Your task to perform on an android device: set default search engine in the chrome app Image 0: 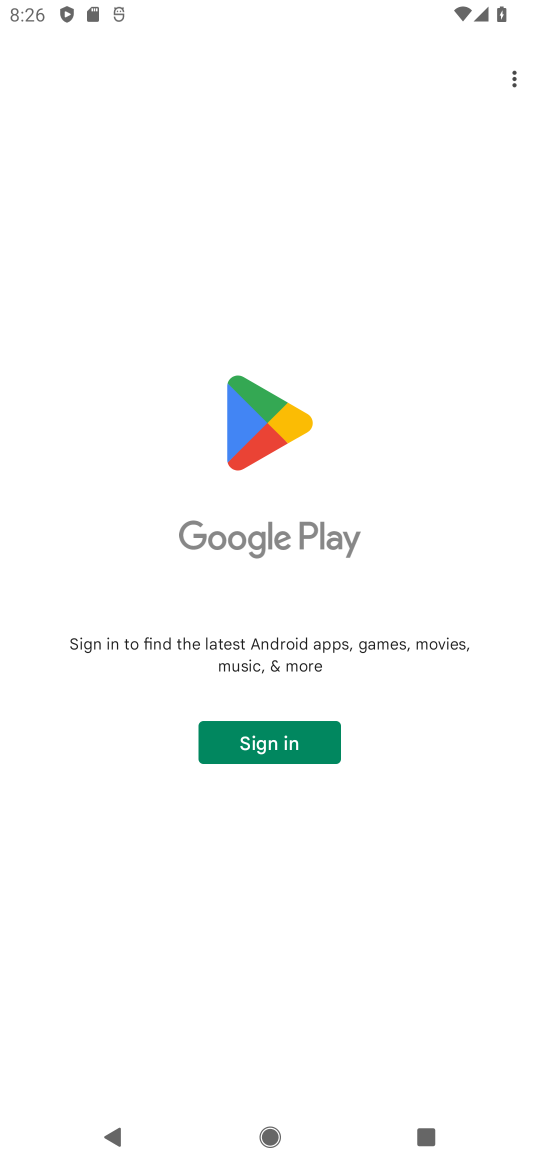
Step 0: press back button
Your task to perform on an android device: set default search engine in the chrome app Image 1: 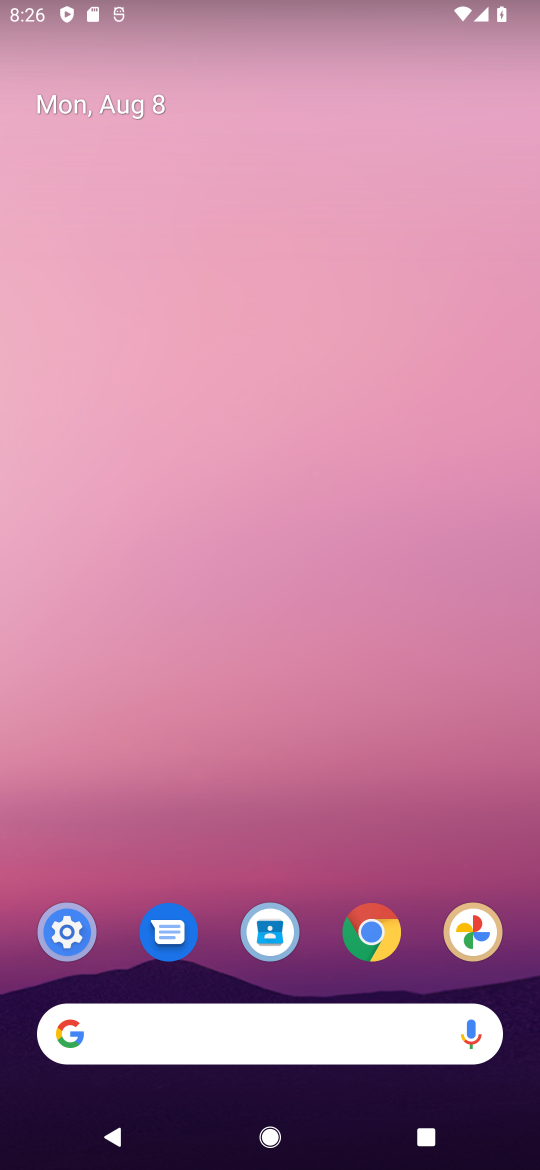
Step 1: click (372, 920)
Your task to perform on an android device: set default search engine in the chrome app Image 2: 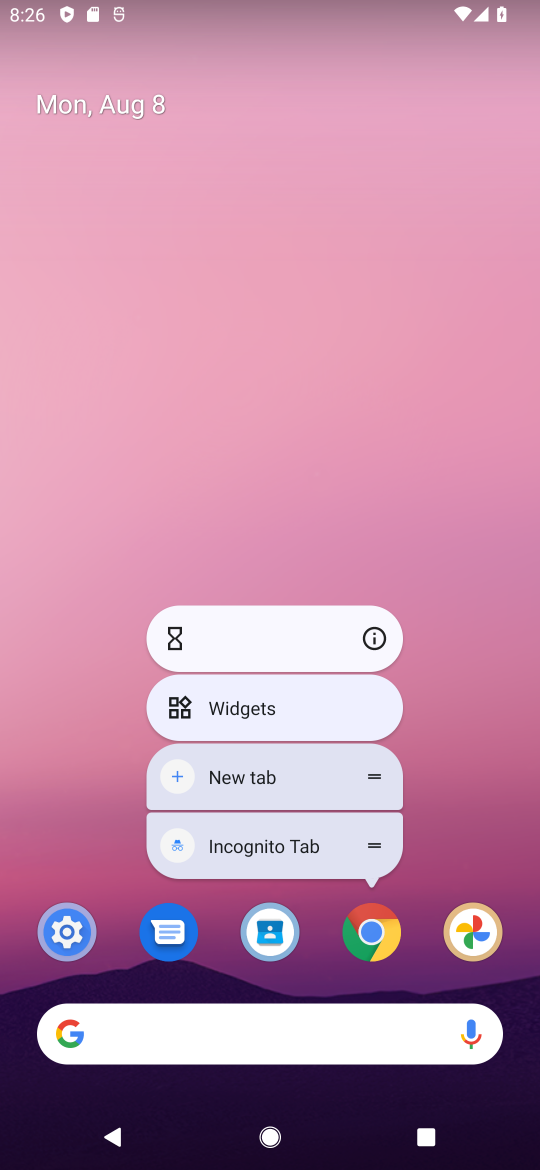
Step 2: click (378, 930)
Your task to perform on an android device: set default search engine in the chrome app Image 3: 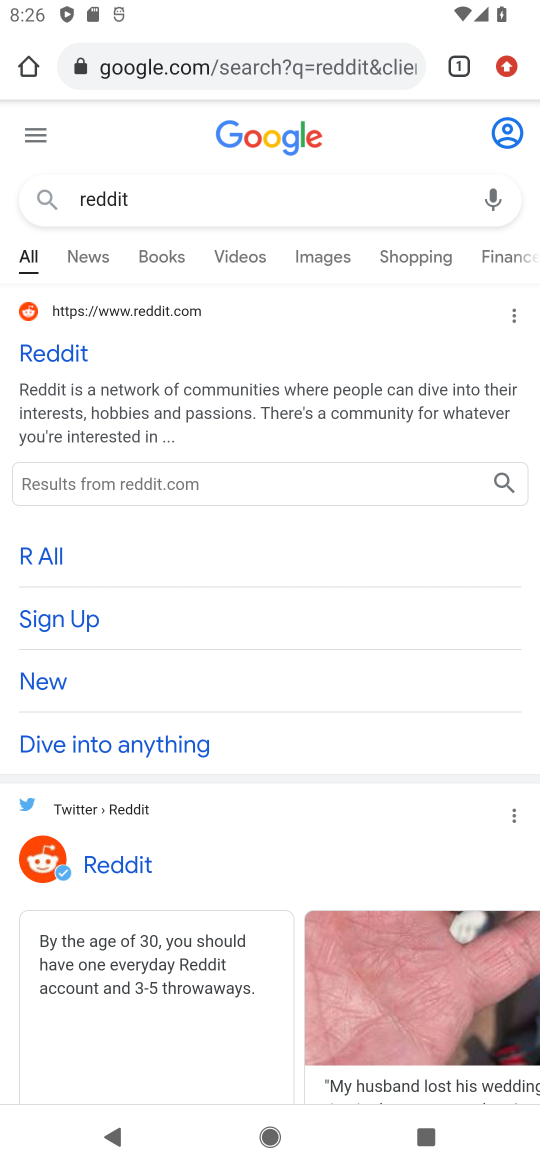
Step 3: drag from (517, 64) to (321, 871)
Your task to perform on an android device: set default search engine in the chrome app Image 4: 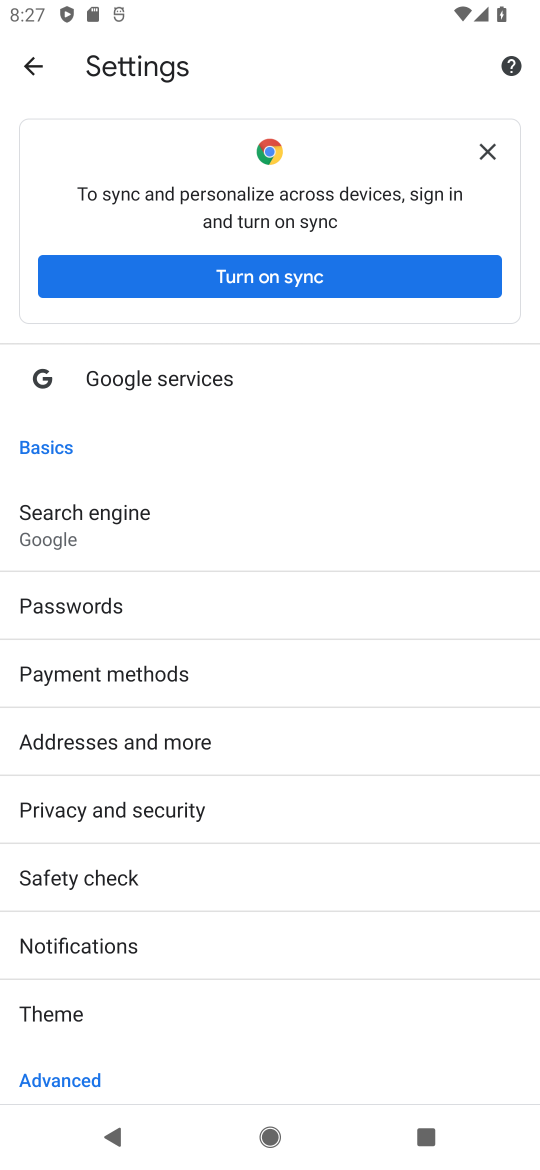
Step 4: click (126, 539)
Your task to perform on an android device: set default search engine in the chrome app Image 5: 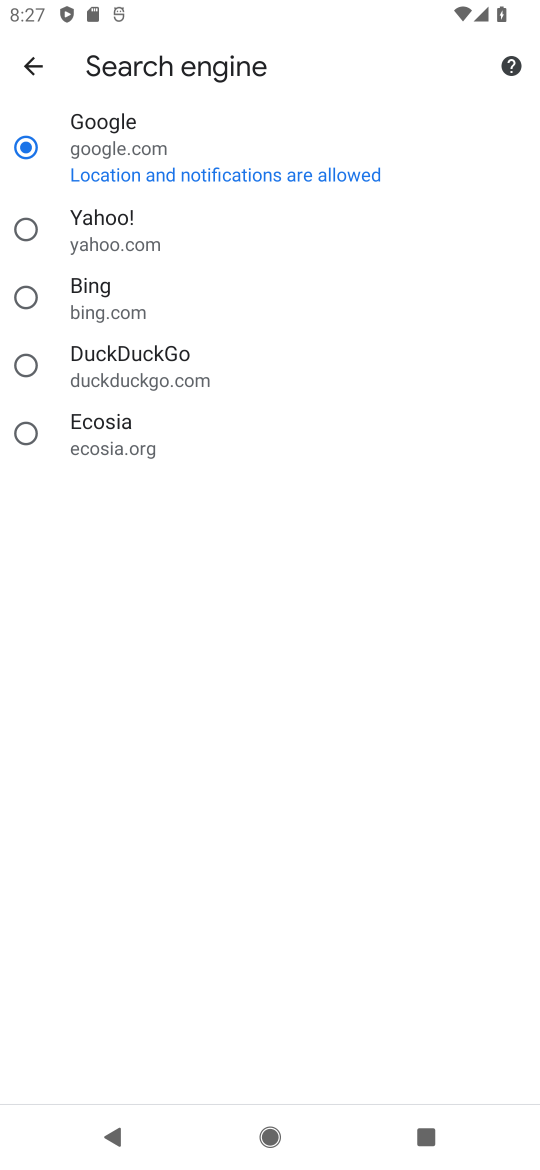
Step 5: click (15, 229)
Your task to perform on an android device: set default search engine in the chrome app Image 6: 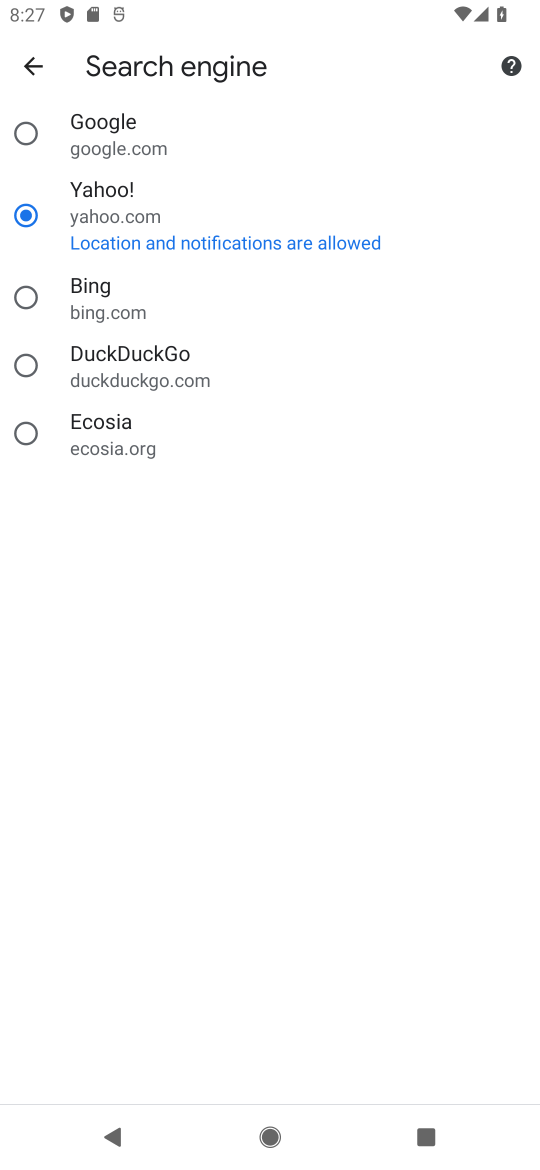
Step 6: task complete